Your task to perform on an android device: change alarm snooze length Image 0: 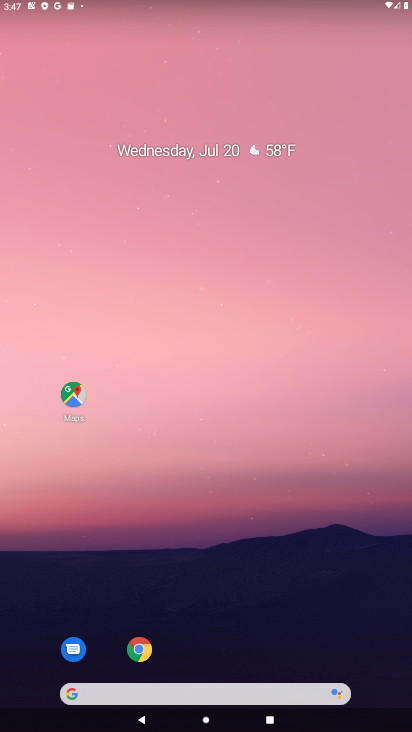
Step 0: drag from (235, 649) to (231, 153)
Your task to perform on an android device: change alarm snooze length Image 1: 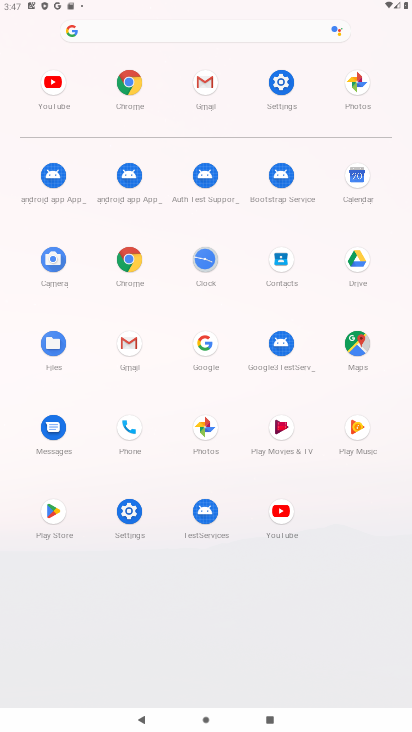
Step 1: click (207, 253)
Your task to perform on an android device: change alarm snooze length Image 2: 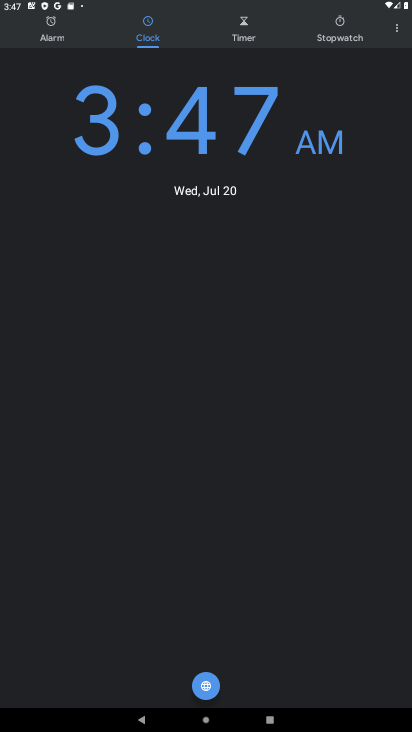
Step 2: click (399, 28)
Your task to perform on an android device: change alarm snooze length Image 3: 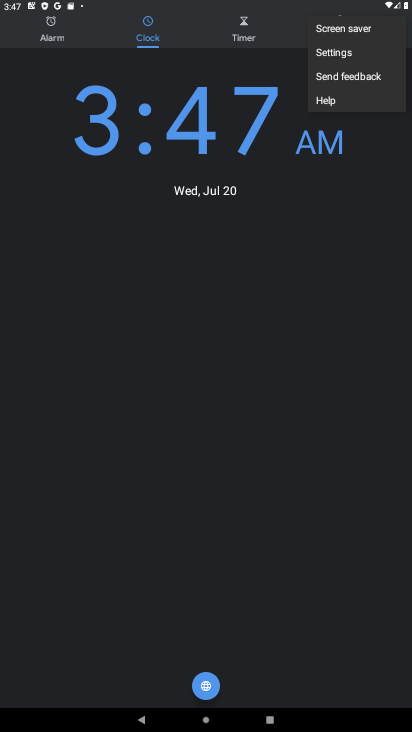
Step 3: click (334, 52)
Your task to perform on an android device: change alarm snooze length Image 4: 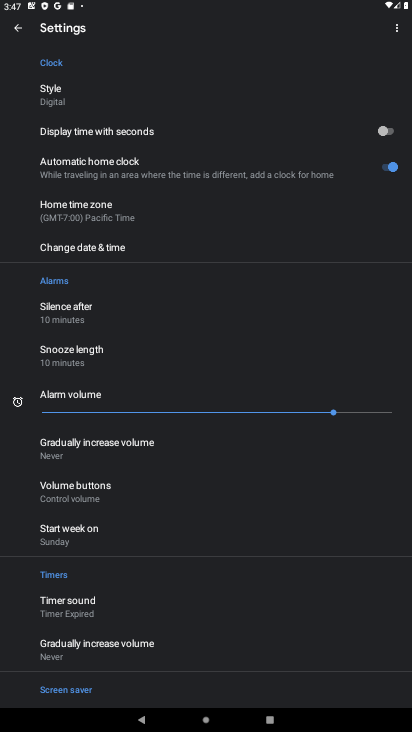
Step 4: drag from (88, 658) to (113, 355)
Your task to perform on an android device: change alarm snooze length Image 5: 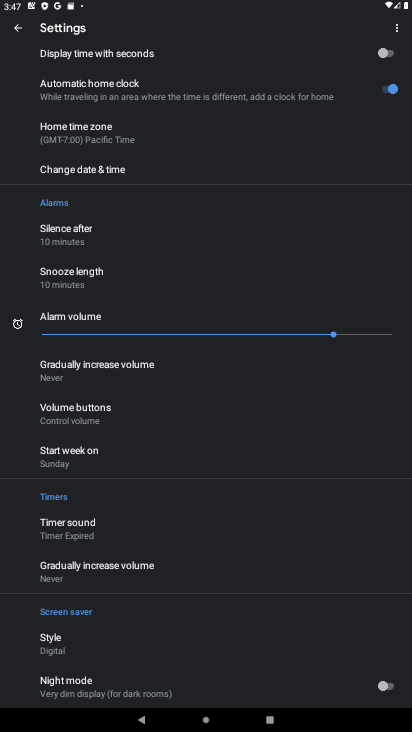
Step 5: click (72, 273)
Your task to perform on an android device: change alarm snooze length Image 6: 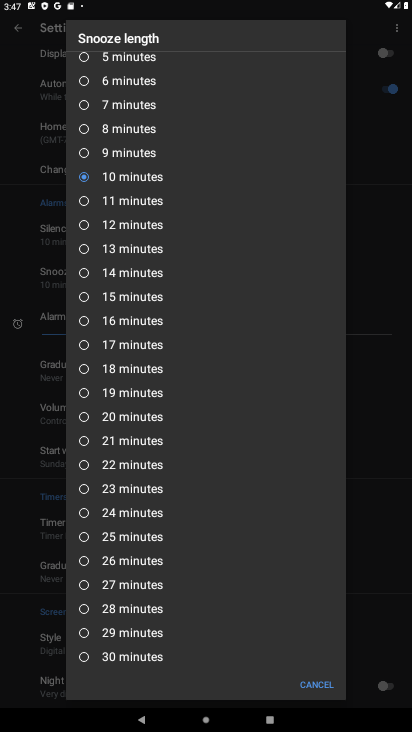
Step 6: task complete